Your task to perform on an android device: check battery use Image 0: 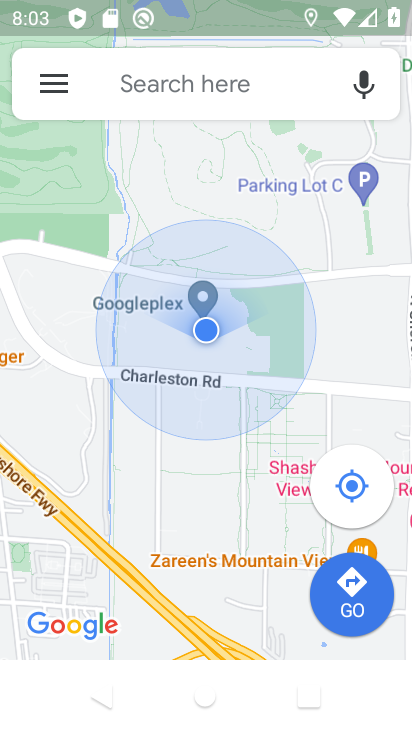
Step 0: press home button
Your task to perform on an android device: check battery use Image 1: 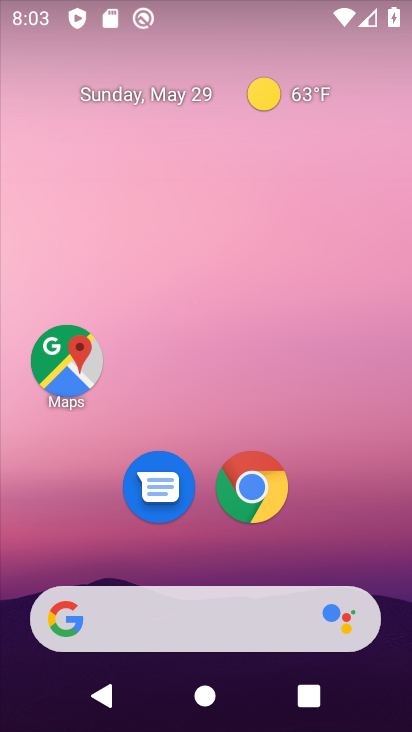
Step 1: drag from (338, 536) to (254, 62)
Your task to perform on an android device: check battery use Image 2: 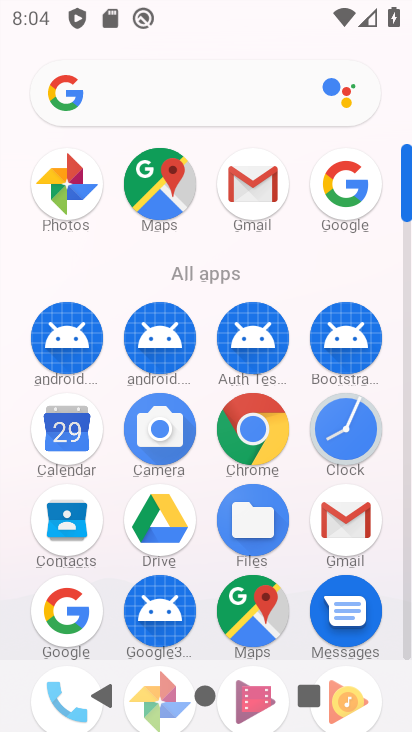
Step 2: drag from (194, 487) to (191, 254)
Your task to perform on an android device: check battery use Image 3: 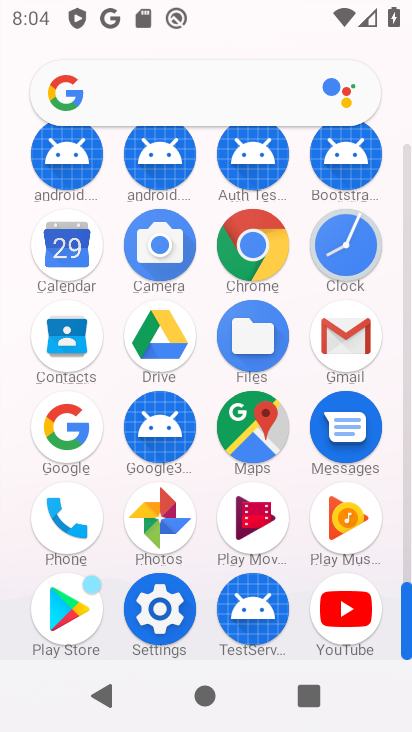
Step 3: click (159, 608)
Your task to perform on an android device: check battery use Image 4: 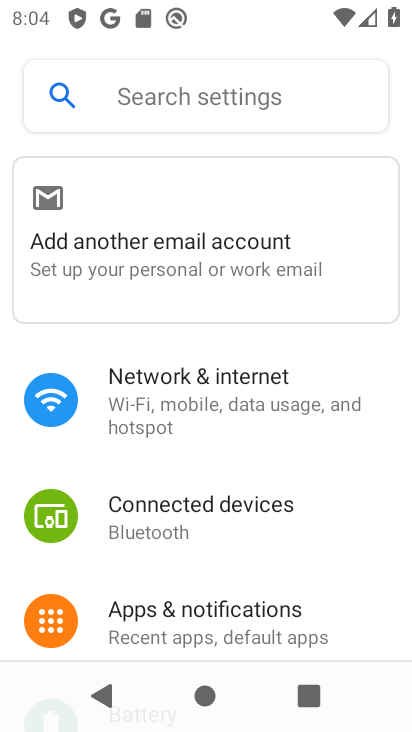
Step 4: drag from (164, 579) to (183, 429)
Your task to perform on an android device: check battery use Image 5: 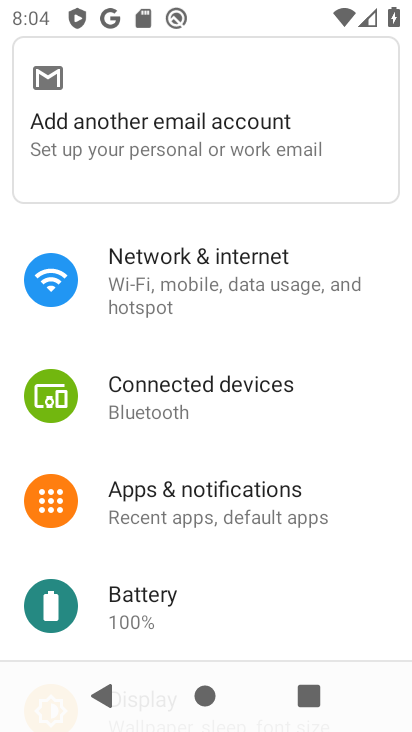
Step 5: drag from (166, 553) to (181, 408)
Your task to perform on an android device: check battery use Image 6: 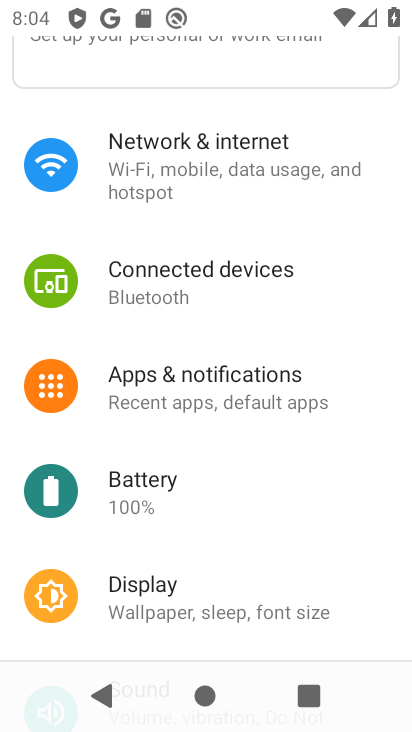
Step 6: click (131, 493)
Your task to perform on an android device: check battery use Image 7: 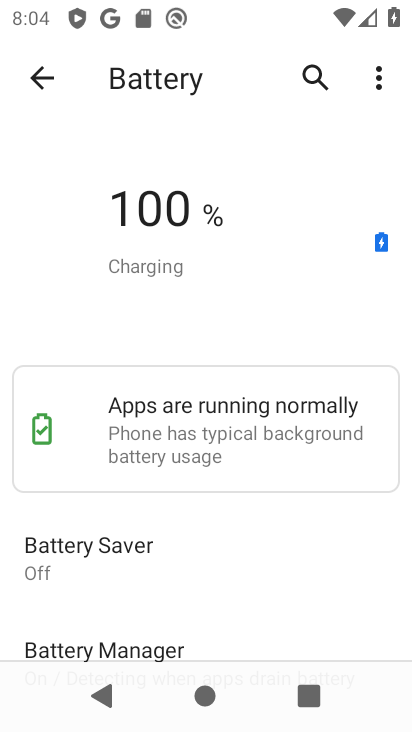
Step 7: click (379, 76)
Your task to perform on an android device: check battery use Image 8: 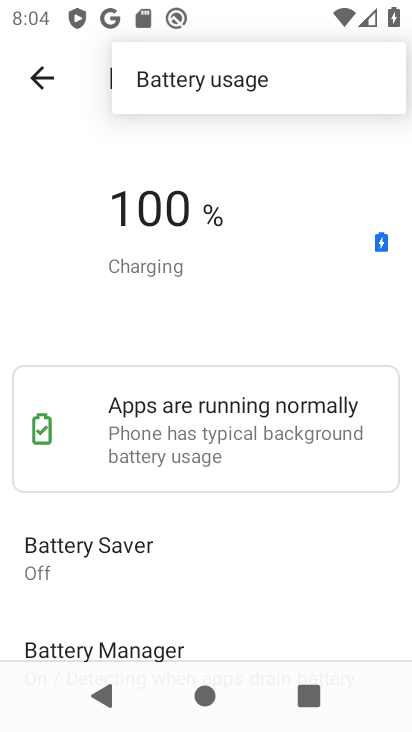
Step 8: click (222, 86)
Your task to perform on an android device: check battery use Image 9: 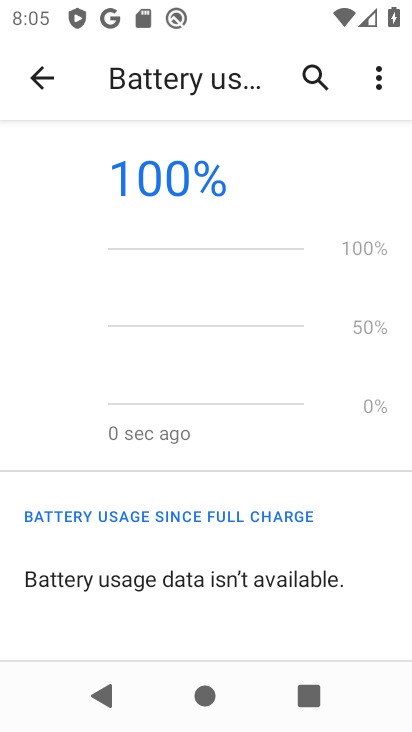
Step 9: task complete